Your task to perform on an android device: open device folders in google photos Image 0: 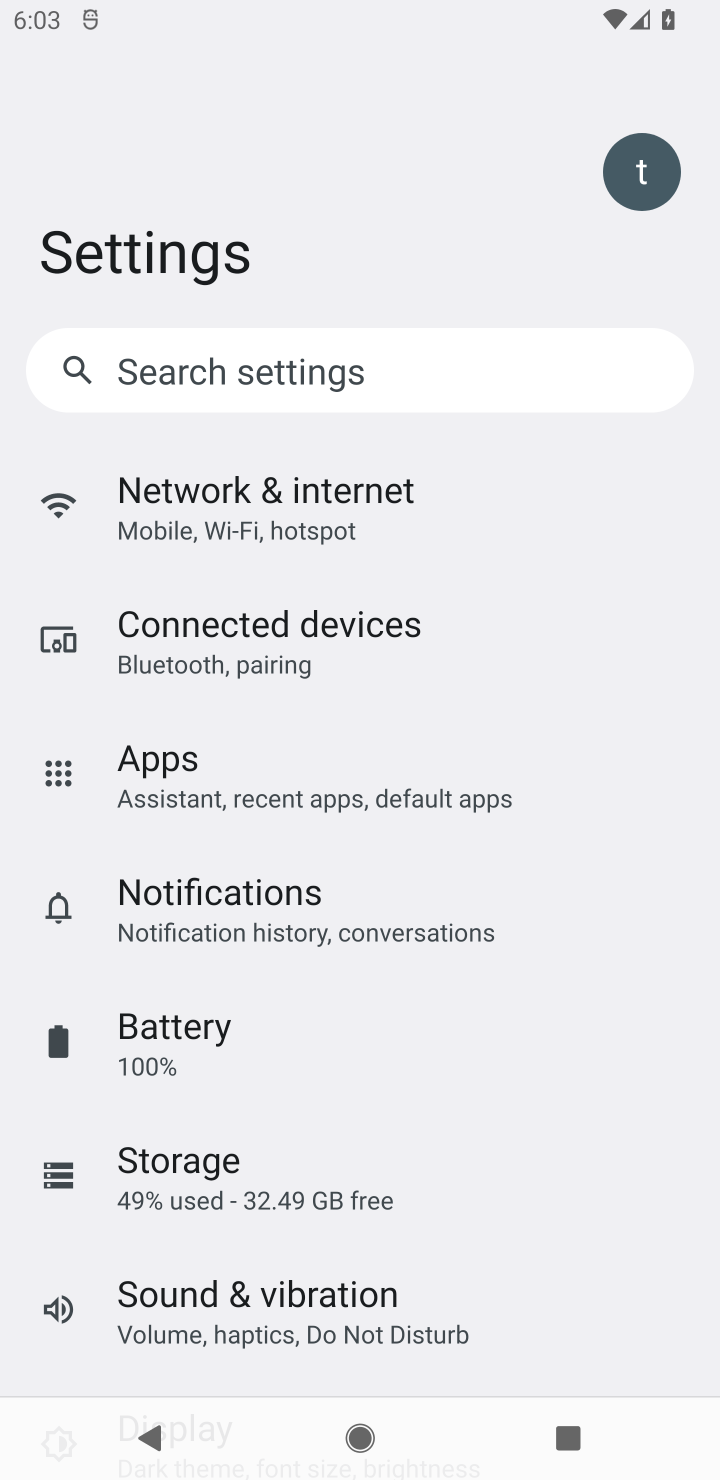
Step 0: press home button
Your task to perform on an android device: open device folders in google photos Image 1: 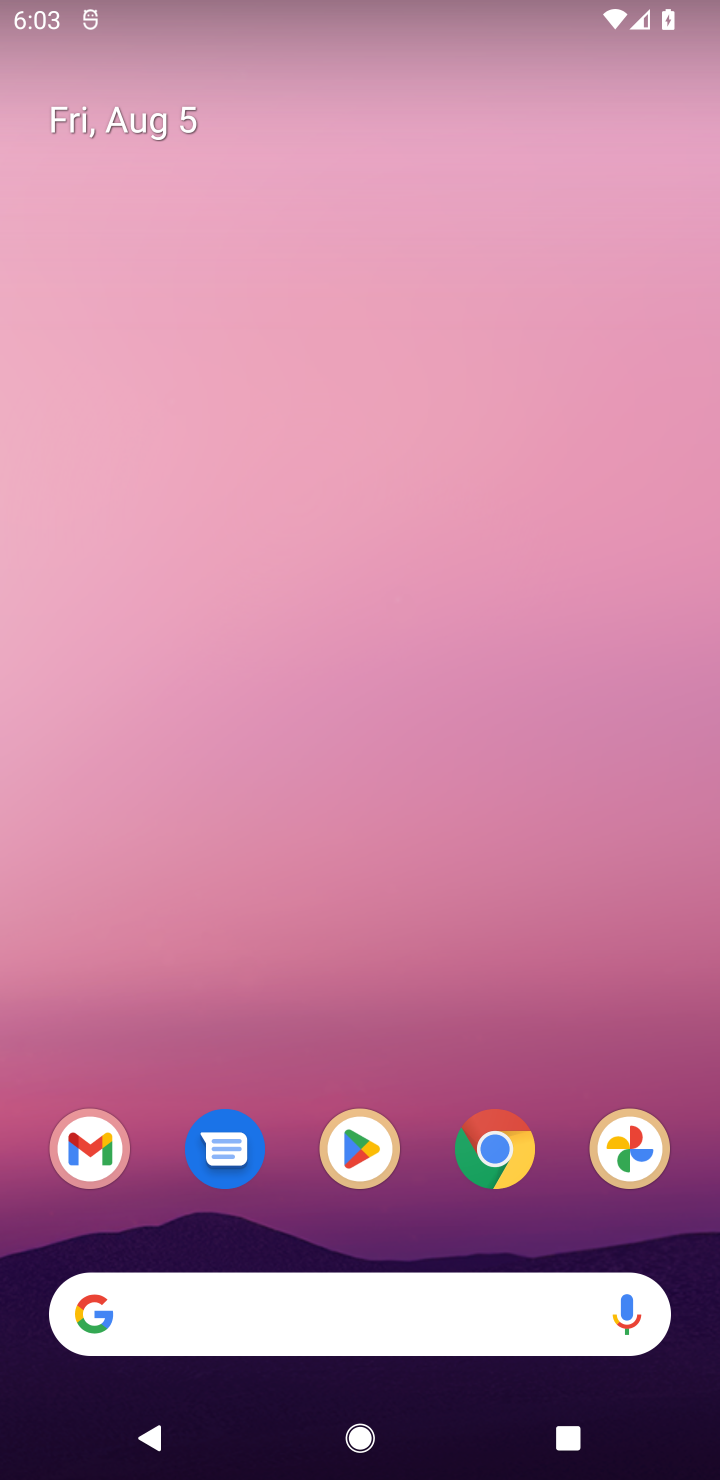
Step 1: click (634, 1142)
Your task to perform on an android device: open device folders in google photos Image 2: 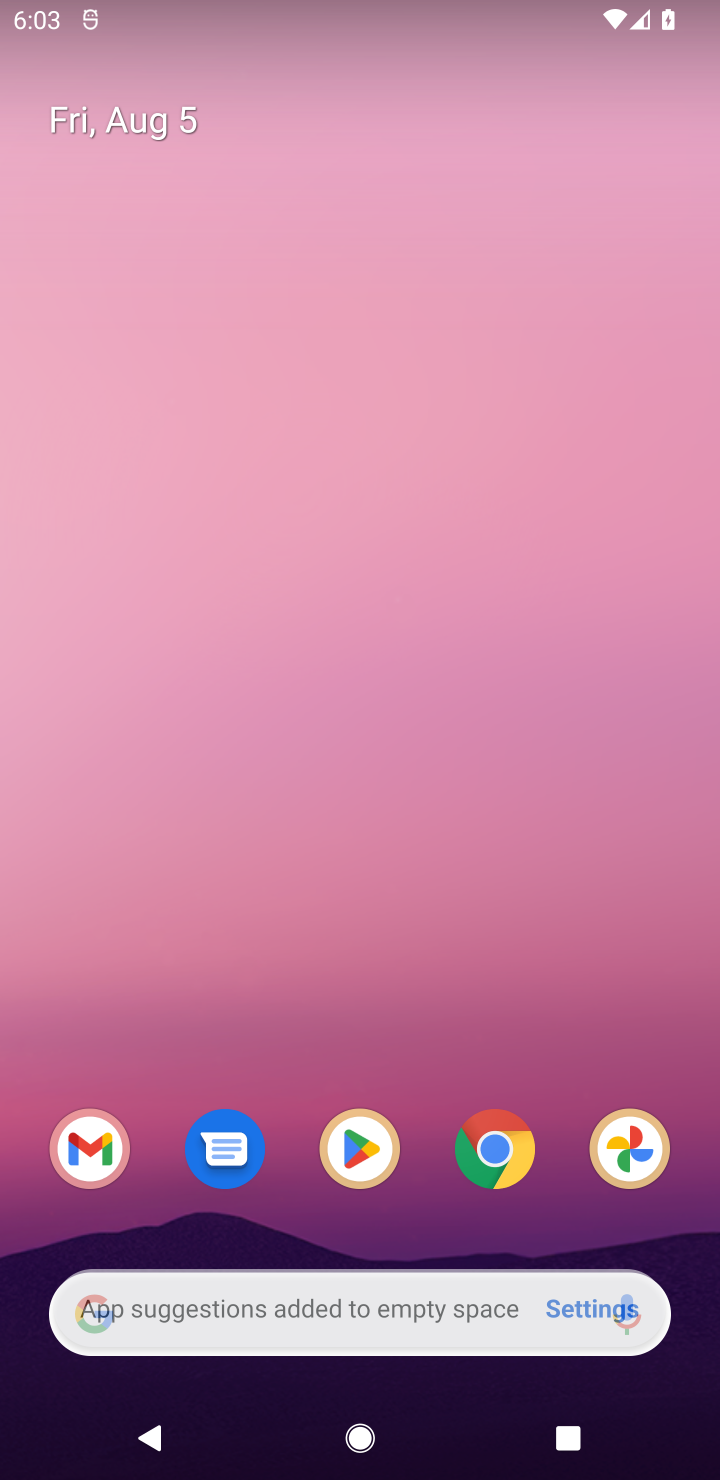
Step 2: click (623, 1163)
Your task to perform on an android device: open device folders in google photos Image 3: 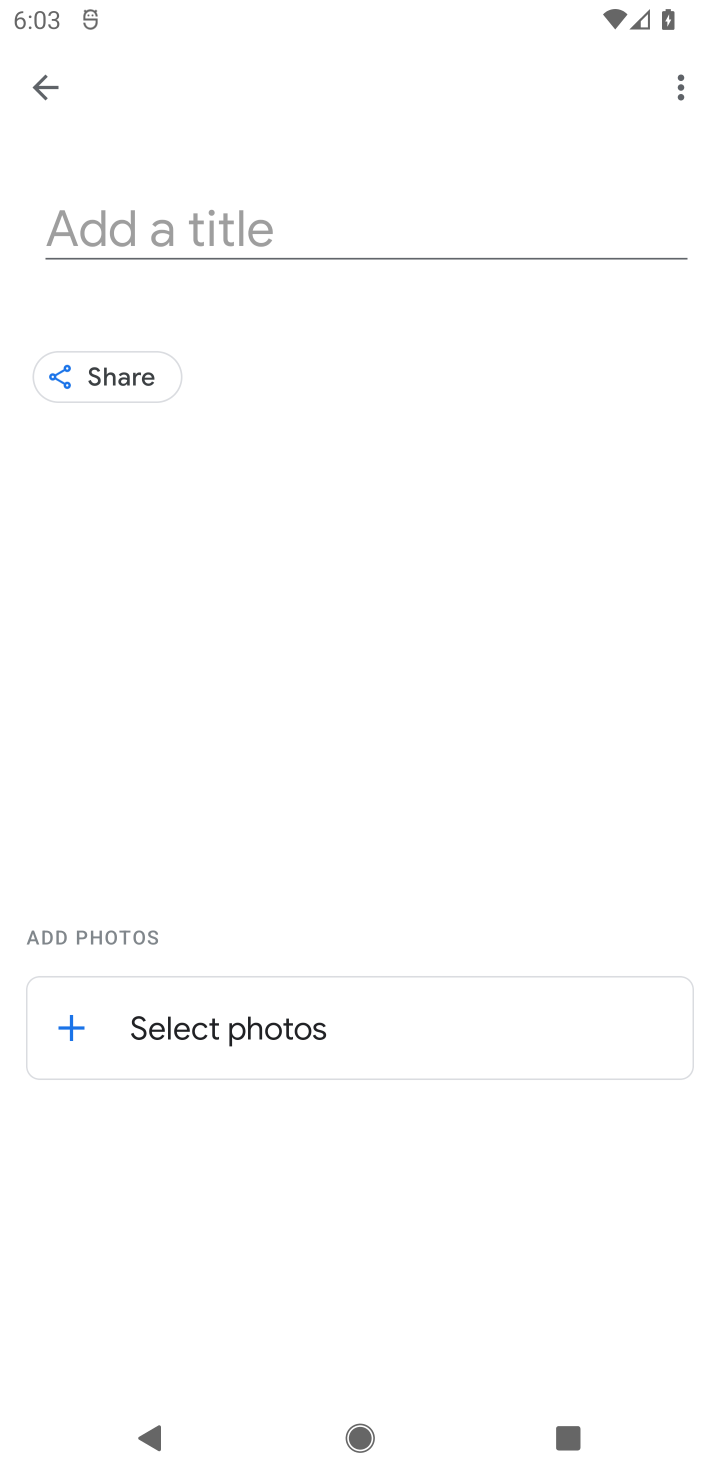
Step 3: click (46, 85)
Your task to perform on an android device: open device folders in google photos Image 4: 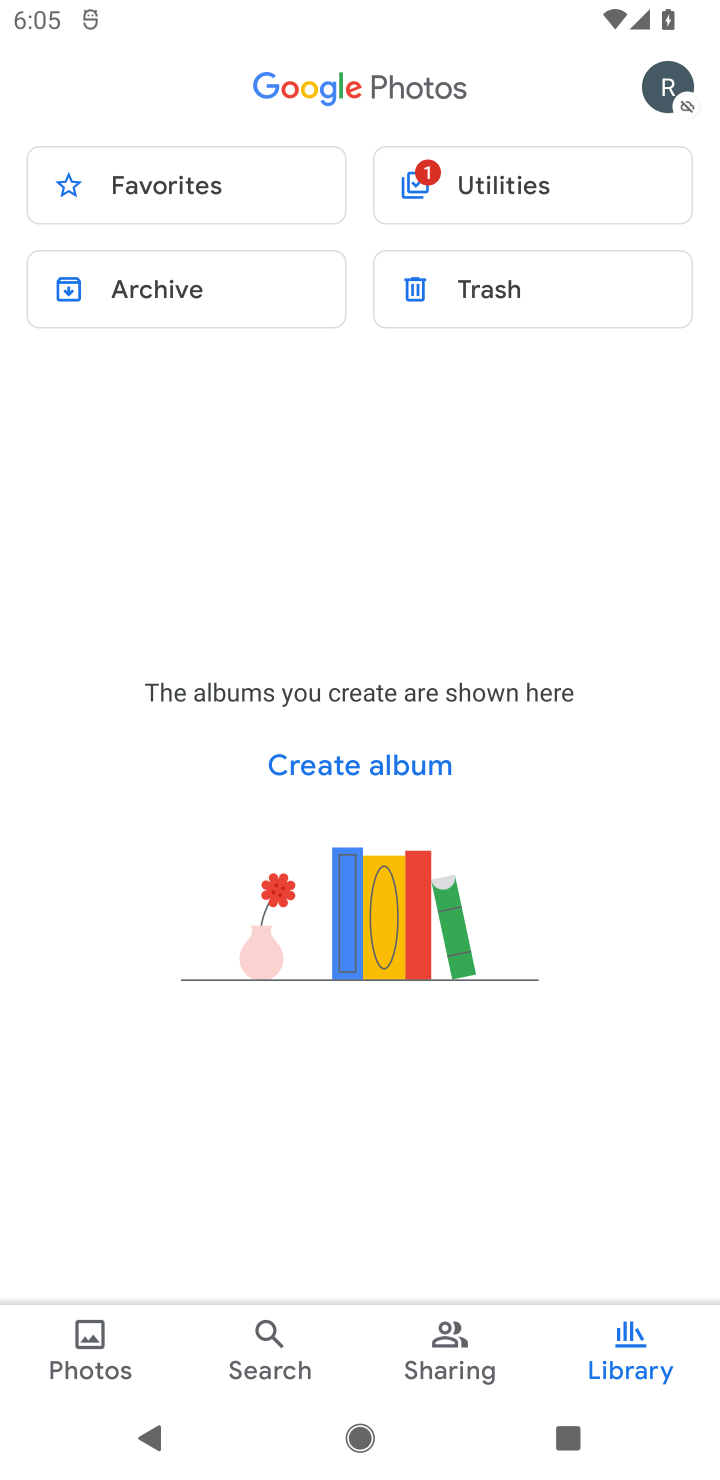
Step 4: task complete